Your task to perform on an android device: Go to display settings Image 0: 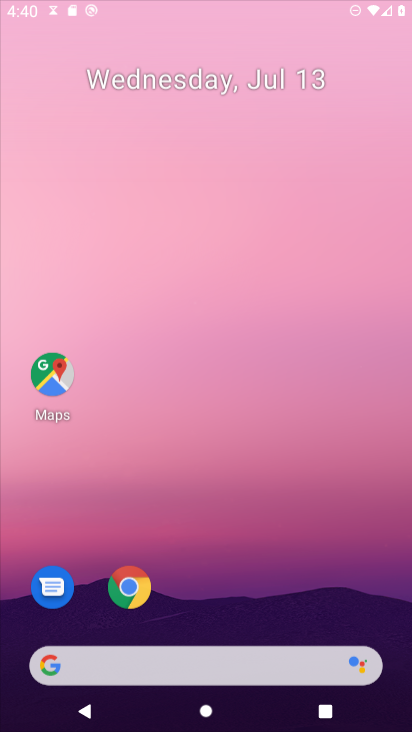
Step 0: click (260, 188)
Your task to perform on an android device: Go to display settings Image 1: 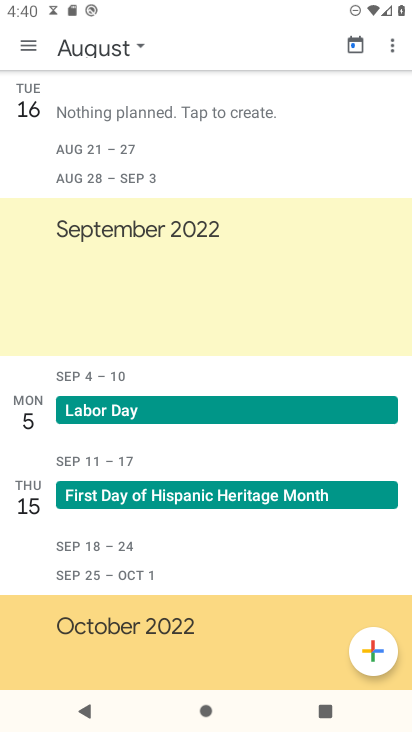
Step 1: press back button
Your task to perform on an android device: Go to display settings Image 2: 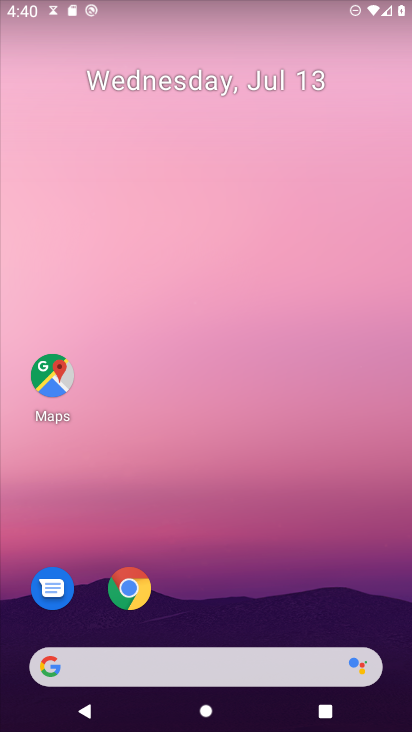
Step 2: click (185, 329)
Your task to perform on an android device: Go to display settings Image 3: 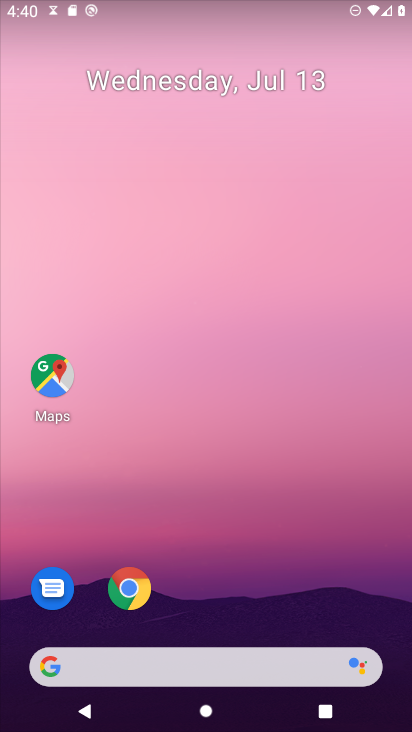
Step 3: drag from (231, 564) to (169, 219)
Your task to perform on an android device: Go to display settings Image 4: 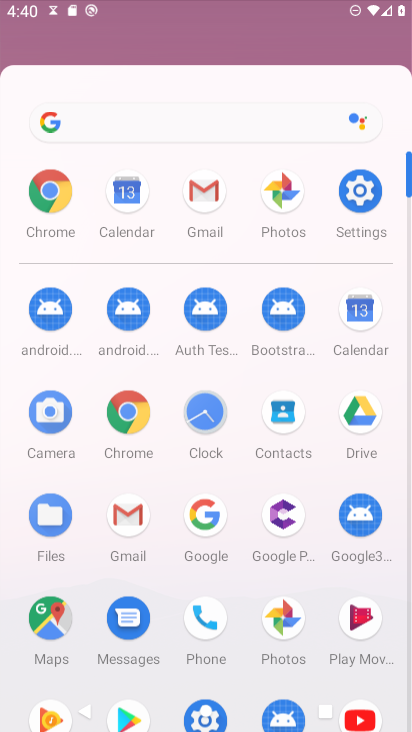
Step 4: drag from (217, 649) to (153, 193)
Your task to perform on an android device: Go to display settings Image 5: 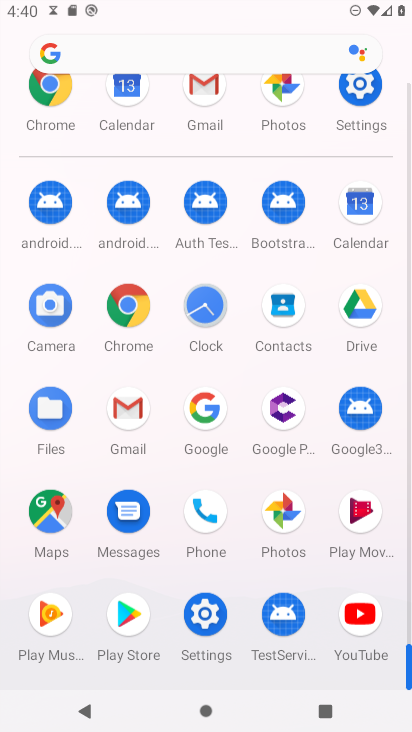
Step 5: drag from (248, 497) to (200, 89)
Your task to perform on an android device: Go to display settings Image 6: 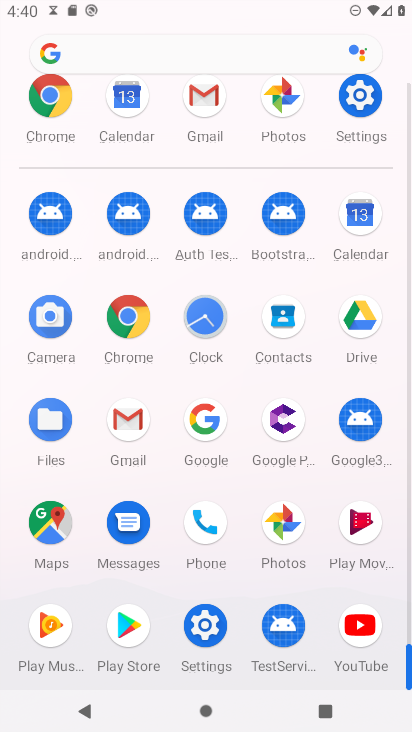
Step 6: click (212, 622)
Your task to perform on an android device: Go to display settings Image 7: 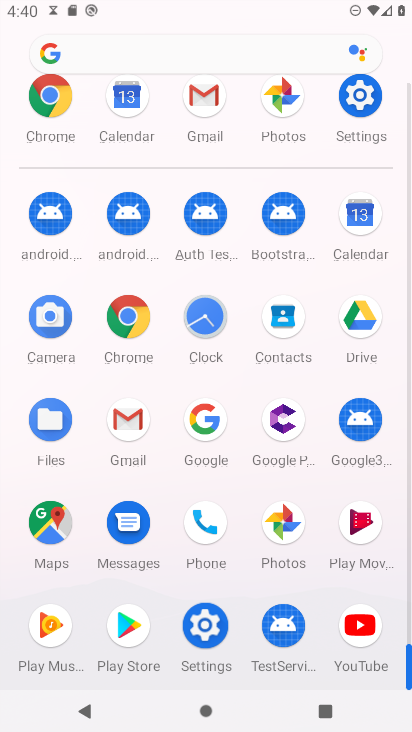
Step 7: click (212, 622)
Your task to perform on an android device: Go to display settings Image 8: 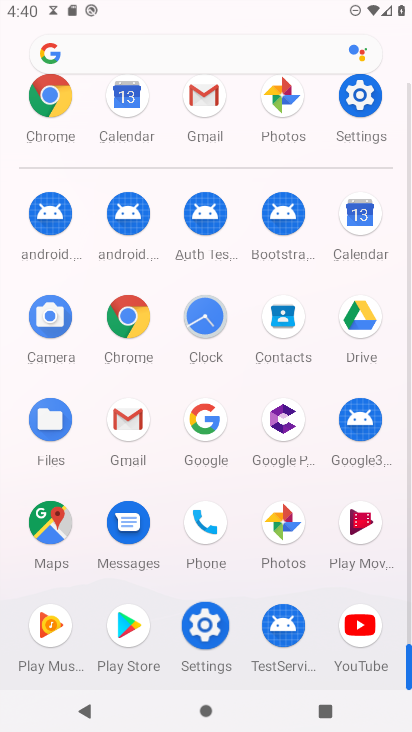
Step 8: click (215, 622)
Your task to perform on an android device: Go to display settings Image 9: 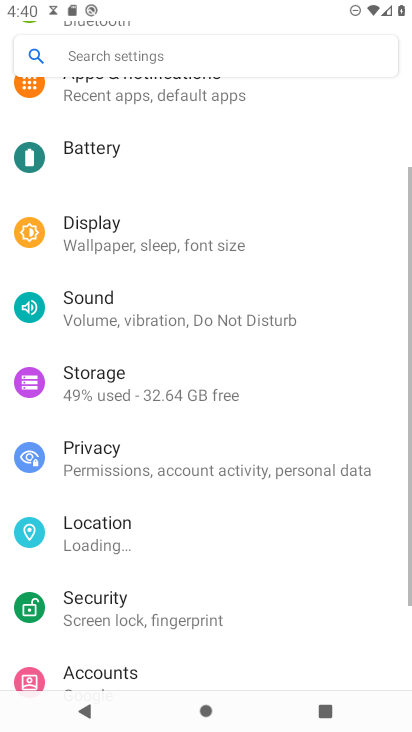
Step 9: click (210, 618)
Your task to perform on an android device: Go to display settings Image 10: 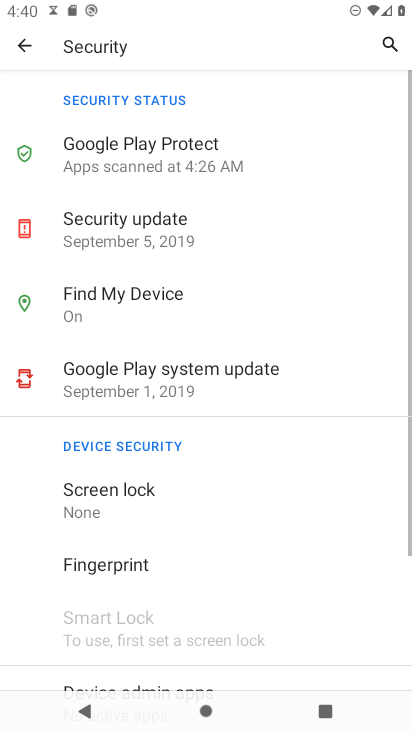
Step 10: click (26, 41)
Your task to perform on an android device: Go to display settings Image 11: 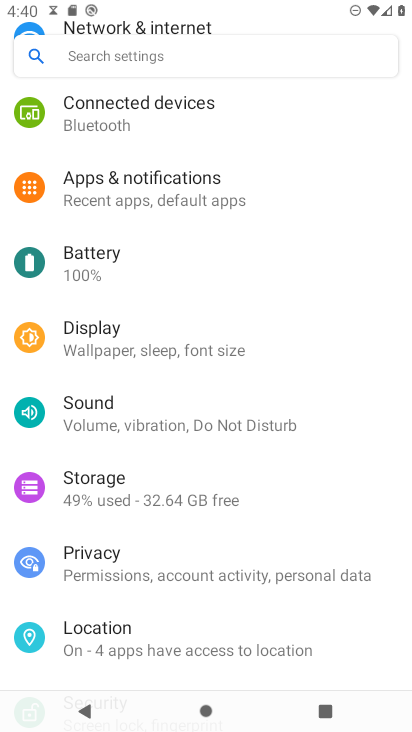
Step 11: click (107, 345)
Your task to perform on an android device: Go to display settings Image 12: 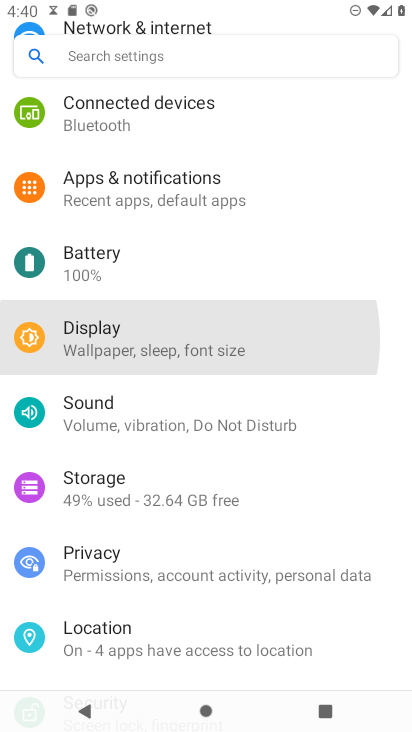
Step 12: click (107, 345)
Your task to perform on an android device: Go to display settings Image 13: 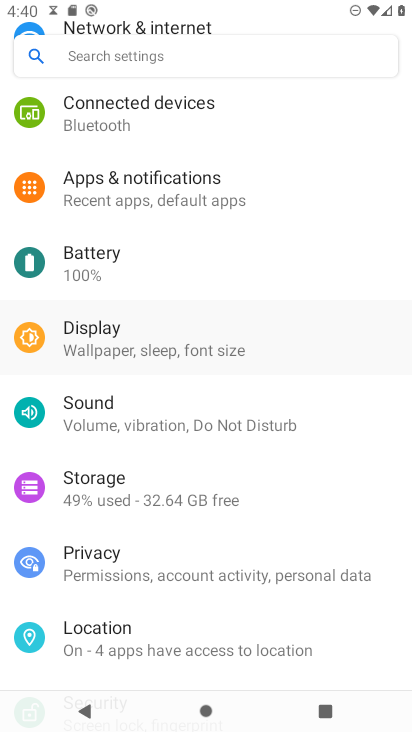
Step 13: click (109, 343)
Your task to perform on an android device: Go to display settings Image 14: 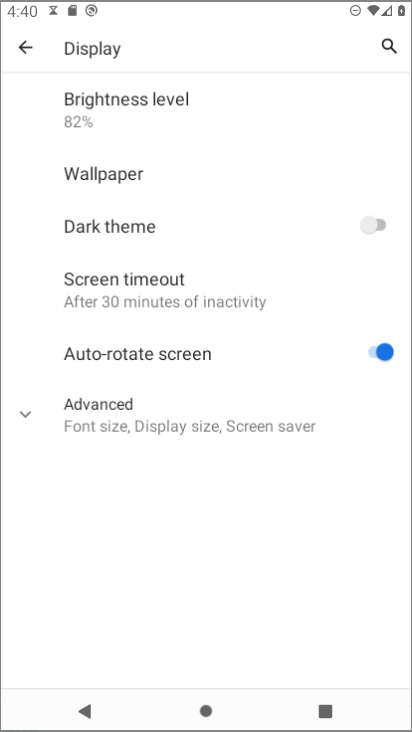
Step 14: click (112, 341)
Your task to perform on an android device: Go to display settings Image 15: 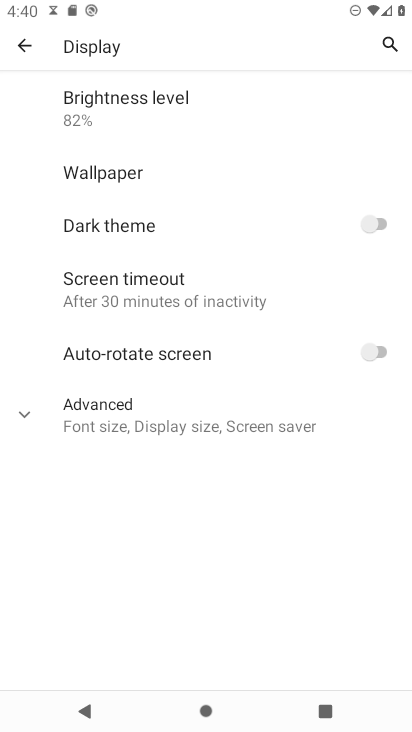
Step 15: task complete